Your task to perform on an android device: turn off smart reply in the gmail app Image 0: 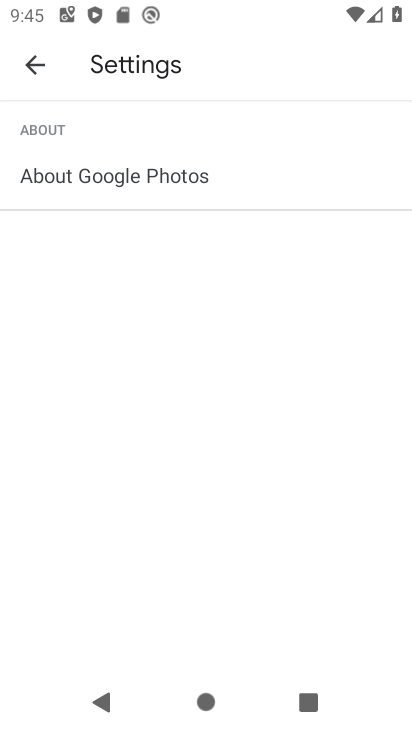
Step 0: press home button
Your task to perform on an android device: turn off smart reply in the gmail app Image 1: 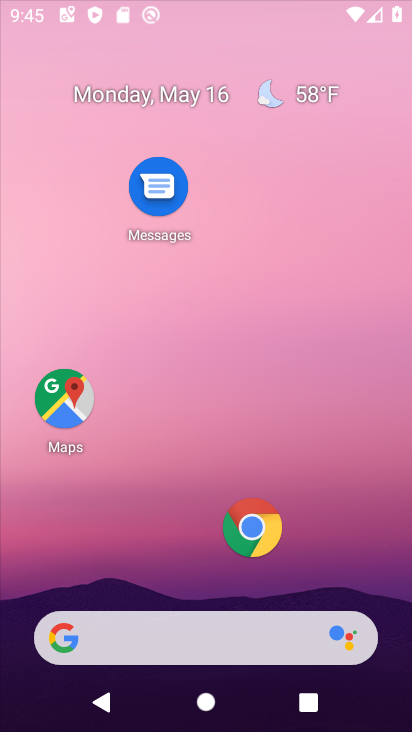
Step 1: drag from (176, 576) to (211, 72)
Your task to perform on an android device: turn off smart reply in the gmail app Image 2: 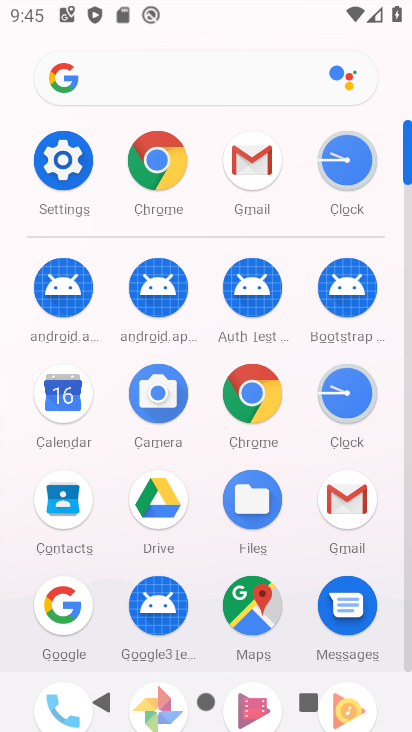
Step 2: click (257, 147)
Your task to perform on an android device: turn off smart reply in the gmail app Image 3: 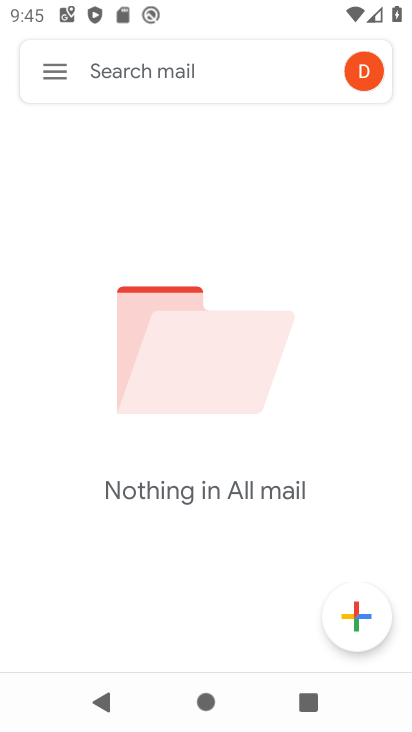
Step 3: click (64, 69)
Your task to perform on an android device: turn off smart reply in the gmail app Image 4: 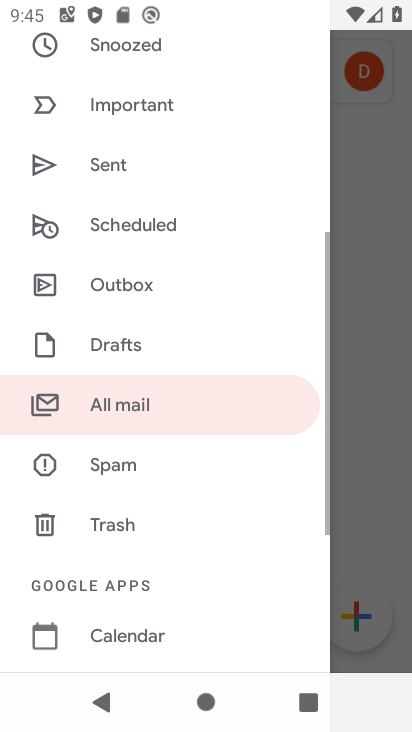
Step 4: drag from (157, 587) to (153, 228)
Your task to perform on an android device: turn off smart reply in the gmail app Image 5: 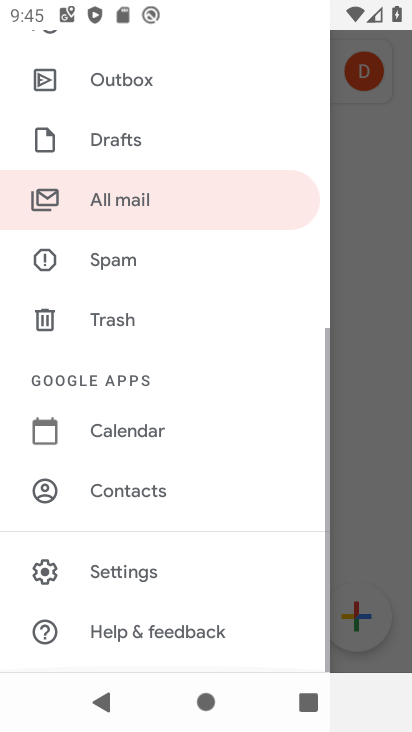
Step 5: click (112, 575)
Your task to perform on an android device: turn off smart reply in the gmail app Image 6: 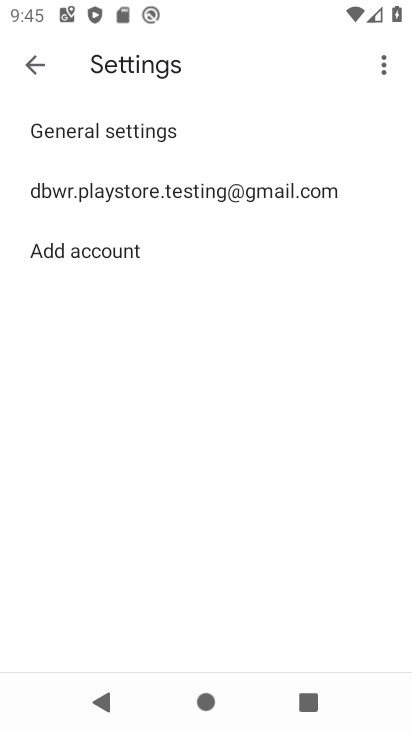
Step 6: click (111, 186)
Your task to perform on an android device: turn off smart reply in the gmail app Image 7: 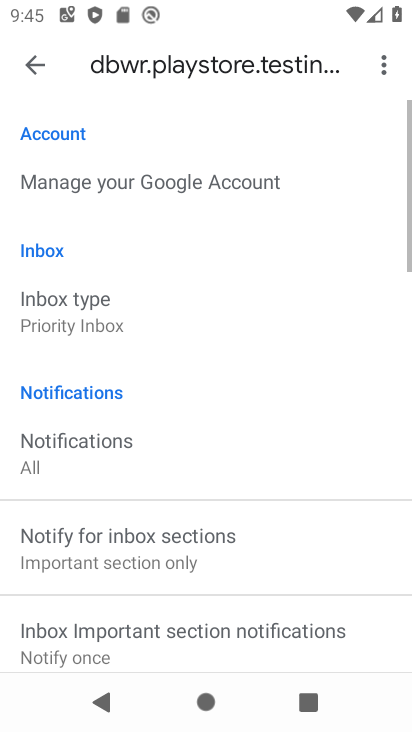
Step 7: drag from (208, 519) to (218, 169)
Your task to perform on an android device: turn off smart reply in the gmail app Image 8: 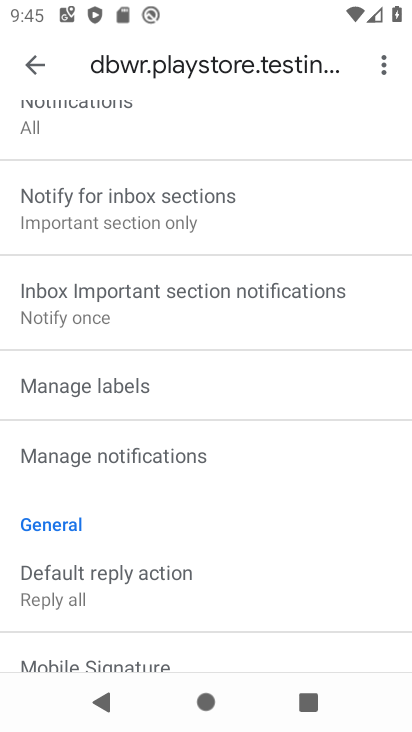
Step 8: drag from (184, 565) to (191, 167)
Your task to perform on an android device: turn off smart reply in the gmail app Image 9: 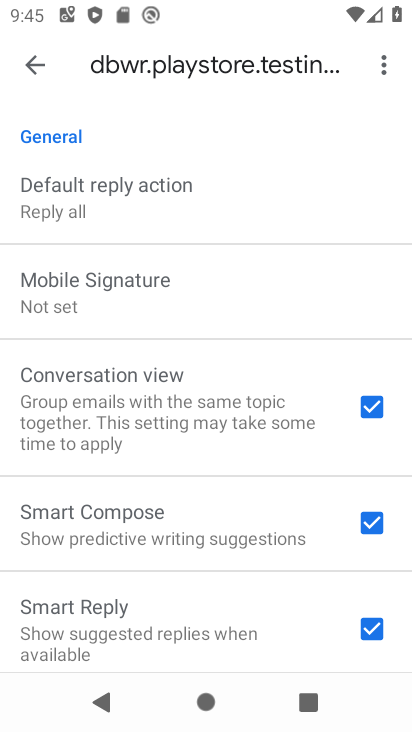
Step 9: click (373, 634)
Your task to perform on an android device: turn off smart reply in the gmail app Image 10: 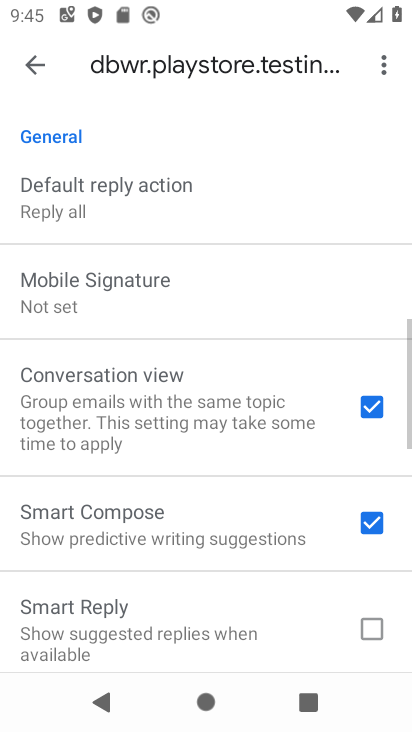
Step 10: task complete